Your task to perform on an android device: turn off wifi Image 0: 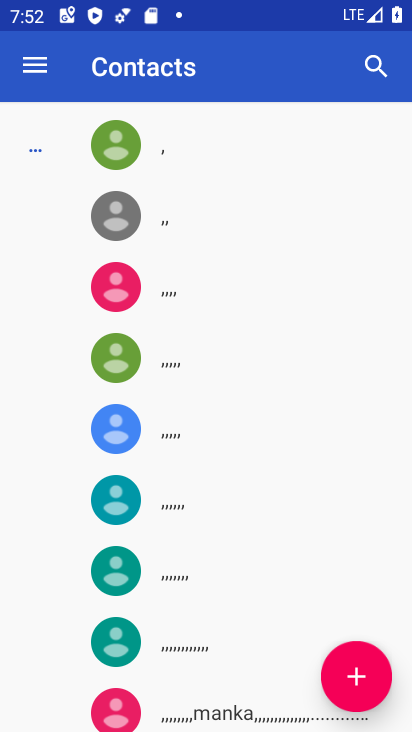
Step 0: press home button
Your task to perform on an android device: turn off wifi Image 1: 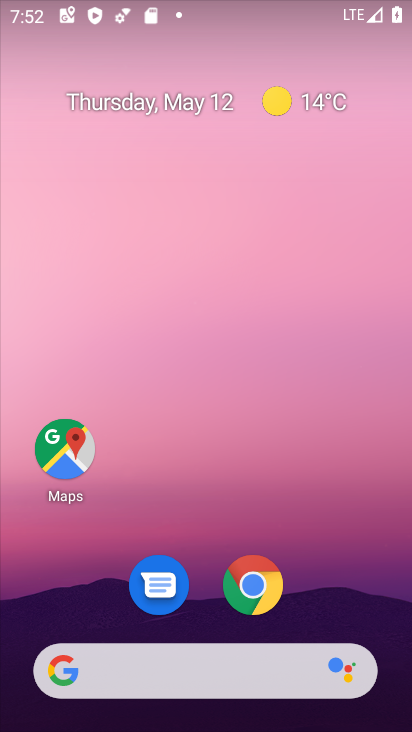
Step 1: drag from (221, 466) to (118, 51)
Your task to perform on an android device: turn off wifi Image 2: 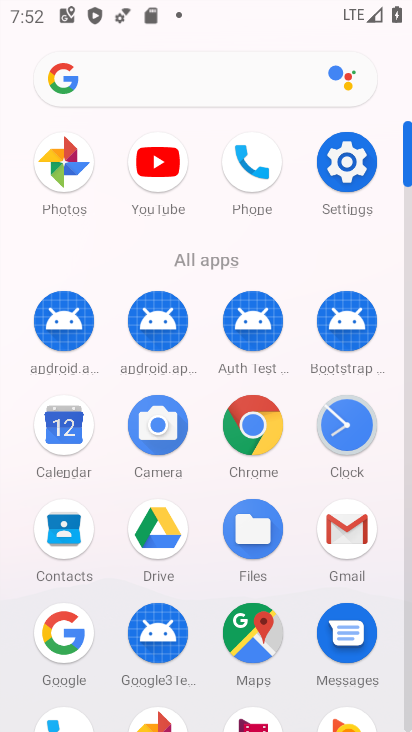
Step 2: click (331, 161)
Your task to perform on an android device: turn off wifi Image 3: 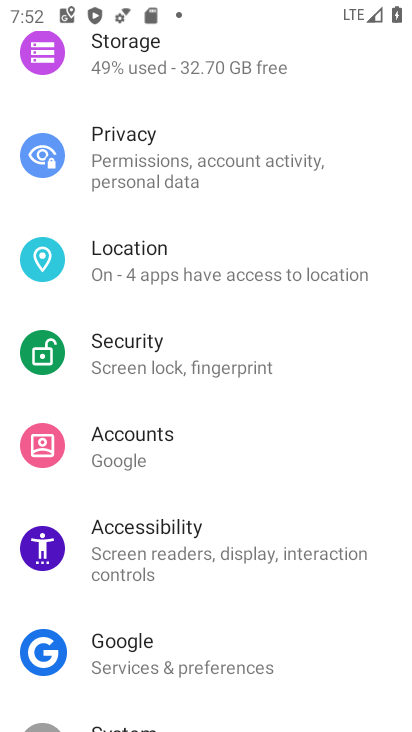
Step 3: drag from (269, 252) to (325, 720)
Your task to perform on an android device: turn off wifi Image 4: 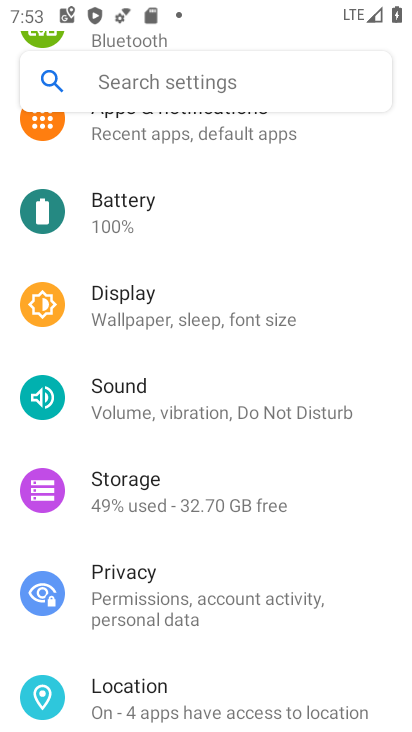
Step 4: drag from (171, 190) to (266, 580)
Your task to perform on an android device: turn off wifi Image 5: 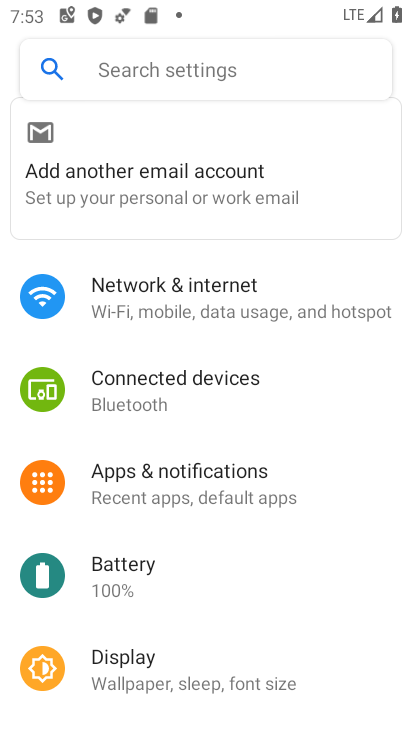
Step 5: click (191, 296)
Your task to perform on an android device: turn off wifi Image 6: 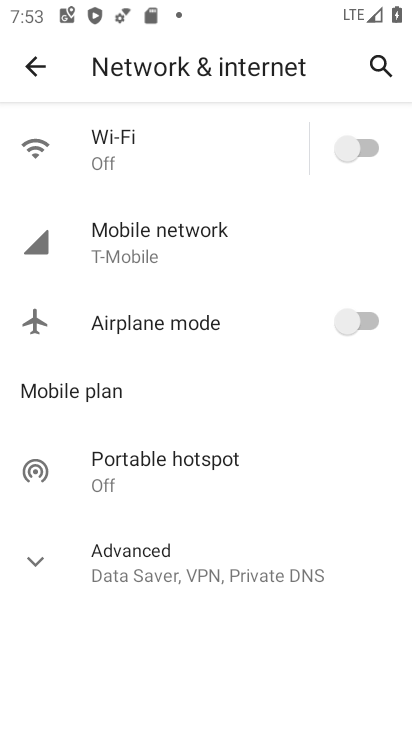
Step 6: click (343, 147)
Your task to perform on an android device: turn off wifi Image 7: 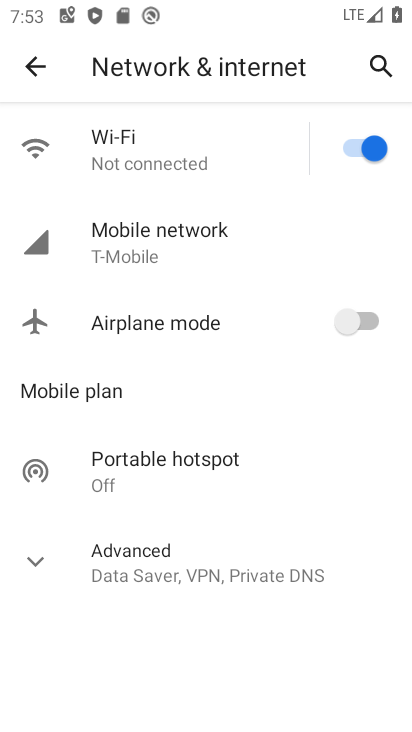
Step 7: task complete